Your task to perform on an android device: Open eBay Image 0: 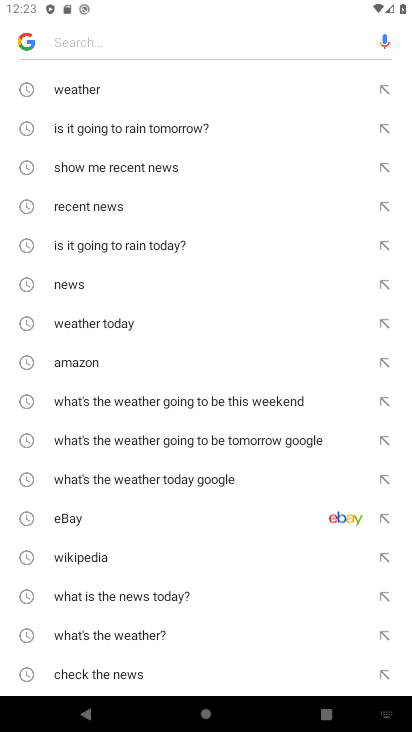
Step 0: type "ebay.com"
Your task to perform on an android device: Open eBay Image 1: 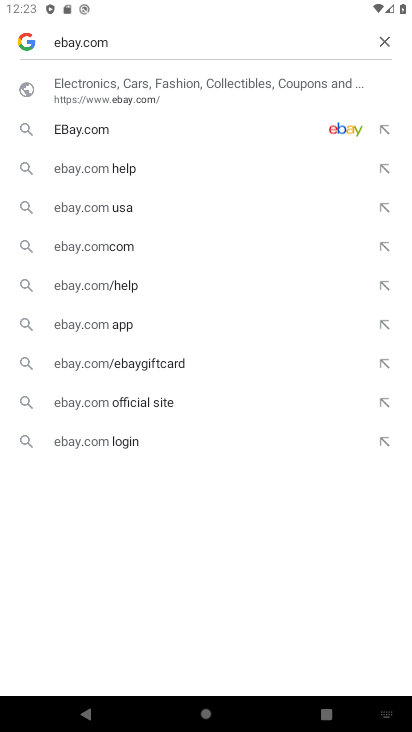
Step 1: click (136, 92)
Your task to perform on an android device: Open eBay Image 2: 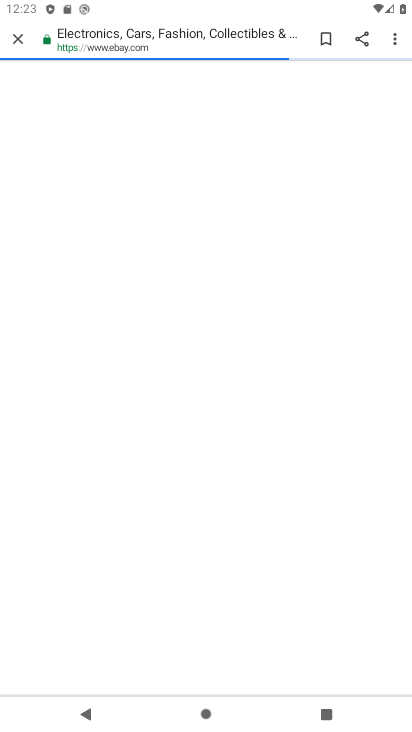
Step 2: task complete